Your task to perform on an android device: change keyboard looks Image 0: 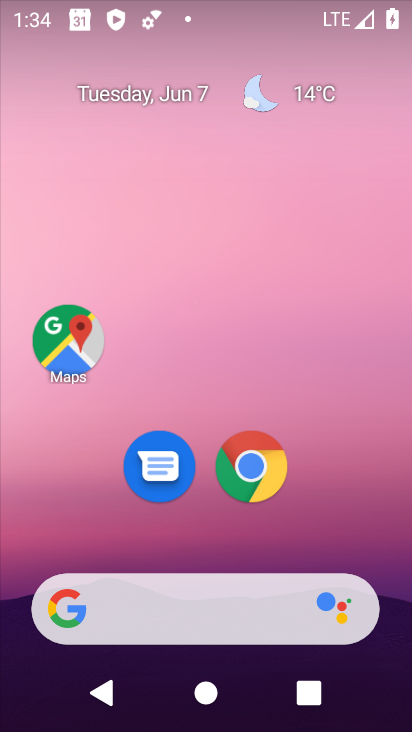
Step 0: drag from (215, 470) to (210, 16)
Your task to perform on an android device: change keyboard looks Image 1: 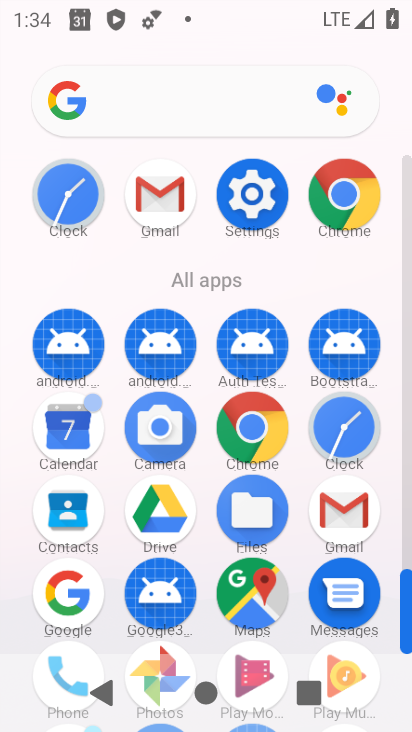
Step 1: click (252, 207)
Your task to perform on an android device: change keyboard looks Image 2: 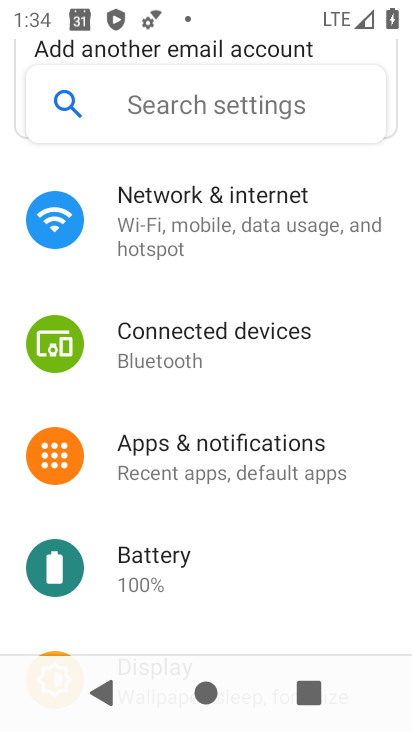
Step 2: drag from (197, 585) to (267, 57)
Your task to perform on an android device: change keyboard looks Image 3: 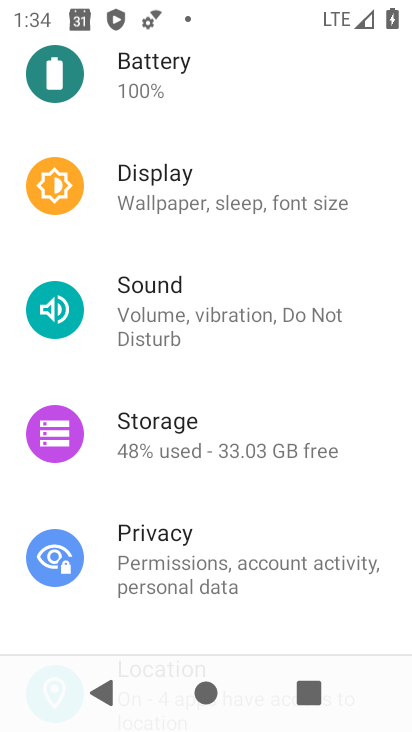
Step 3: drag from (194, 610) to (279, 41)
Your task to perform on an android device: change keyboard looks Image 4: 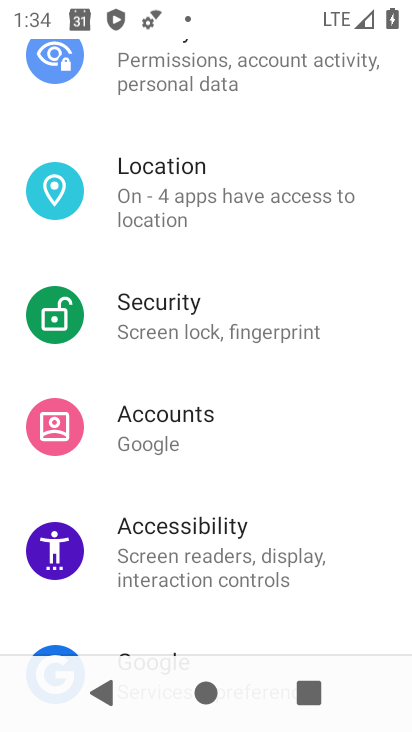
Step 4: drag from (178, 606) to (269, 23)
Your task to perform on an android device: change keyboard looks Image 5: 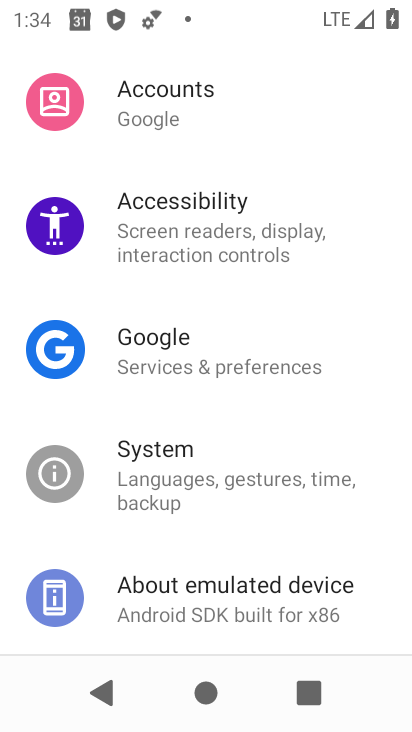
Step 5: click (198, 462)
Your task to perform on an android device: change keyboard looks Image 6: 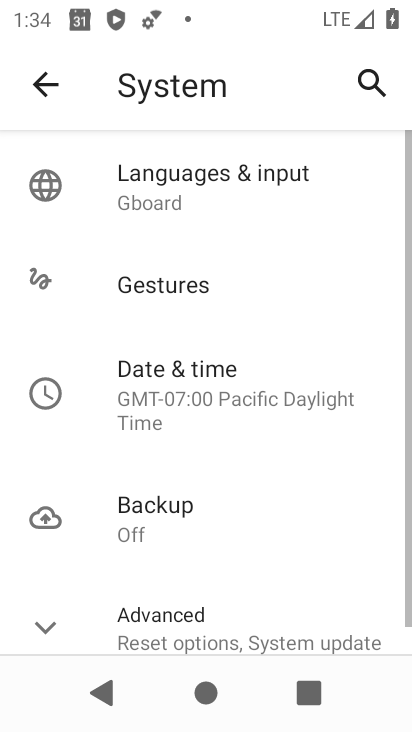
Step 6: click (216, 196)
Your task to perform on an android device: change keyboard looks Image 7: 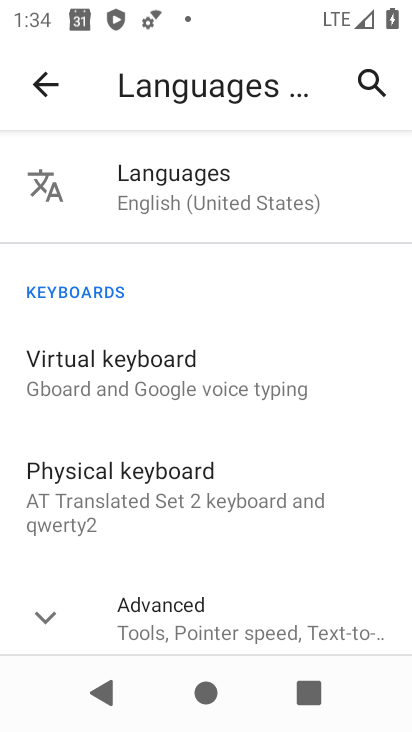
Step 7: click (178, 369)
Your task to perform on an android device: change keyboard looks Image 8: 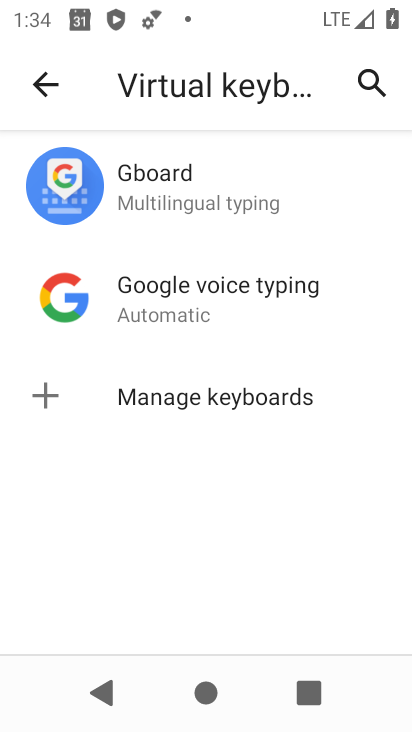
Step 8: click (204, 189)
Your task to perform on an android device: change keyboard looks Image 9: 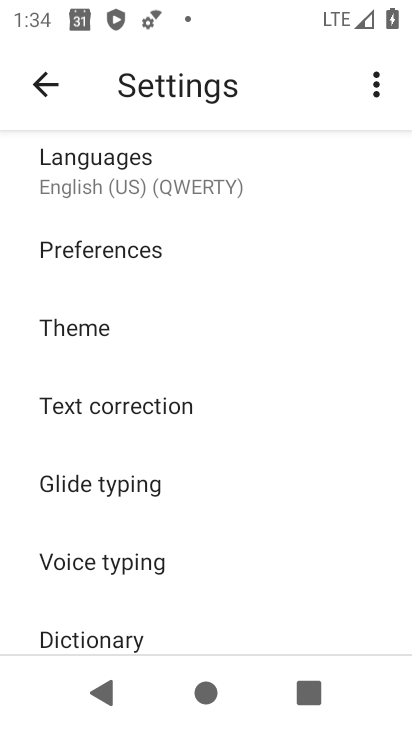
Step 9: click (89, 310)
Your task to perform on an android device: change keyboard looks Image 10: 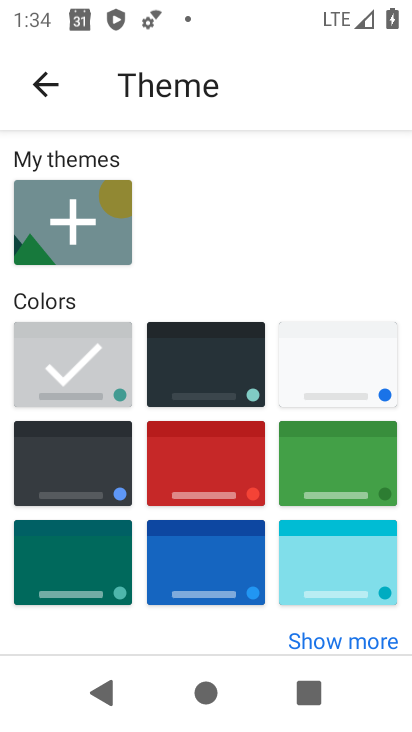
Step 10: click (203, 473)
Your task to perform on an android device: change keyboard looks Image 11: 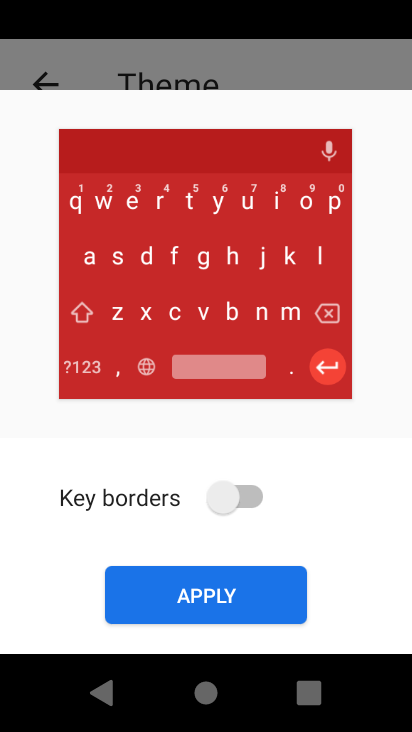
Step 11: click (173, 599)
Your task to perform on an android device: change keyboard looks Image 12: 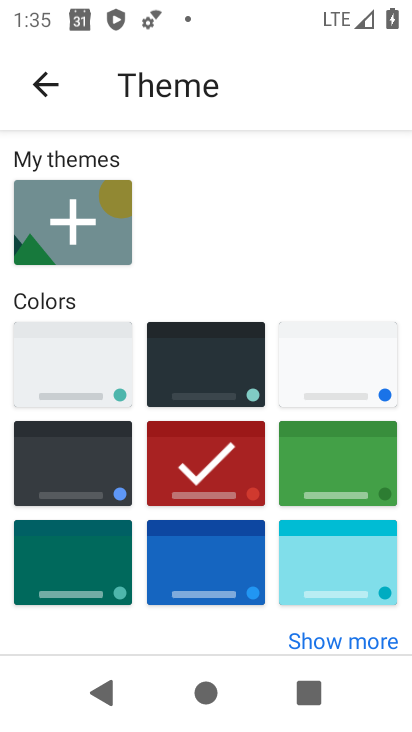
Step 12: task complete